Your task to perform on an android device: What's on the menu at Papa Murphy's? Image 0: 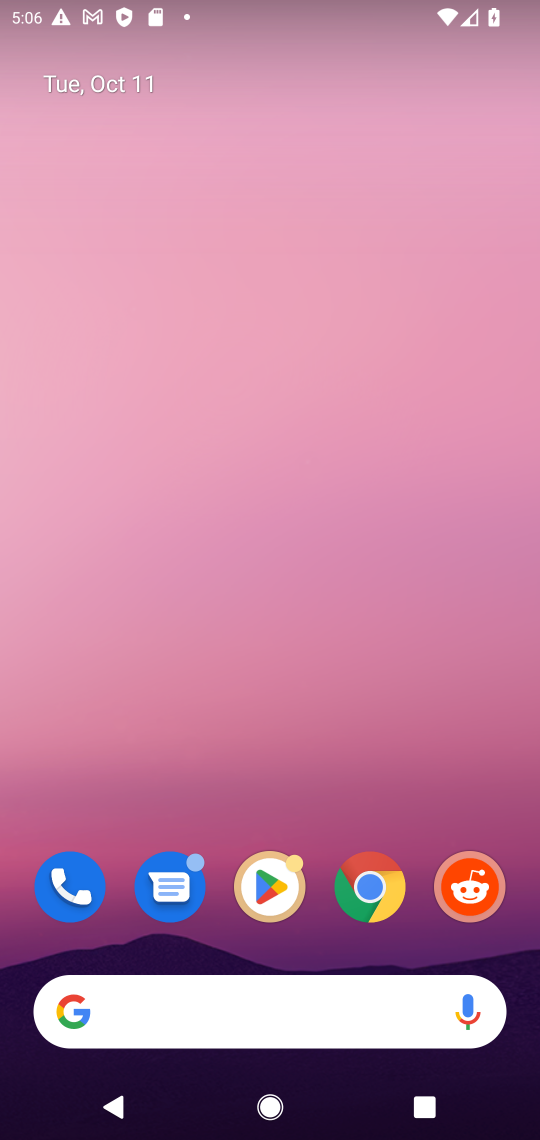
Step 0: click (216, 1003)
Your task to perform on an android device: What's on the menu at Papa Murphy's? Image 1: 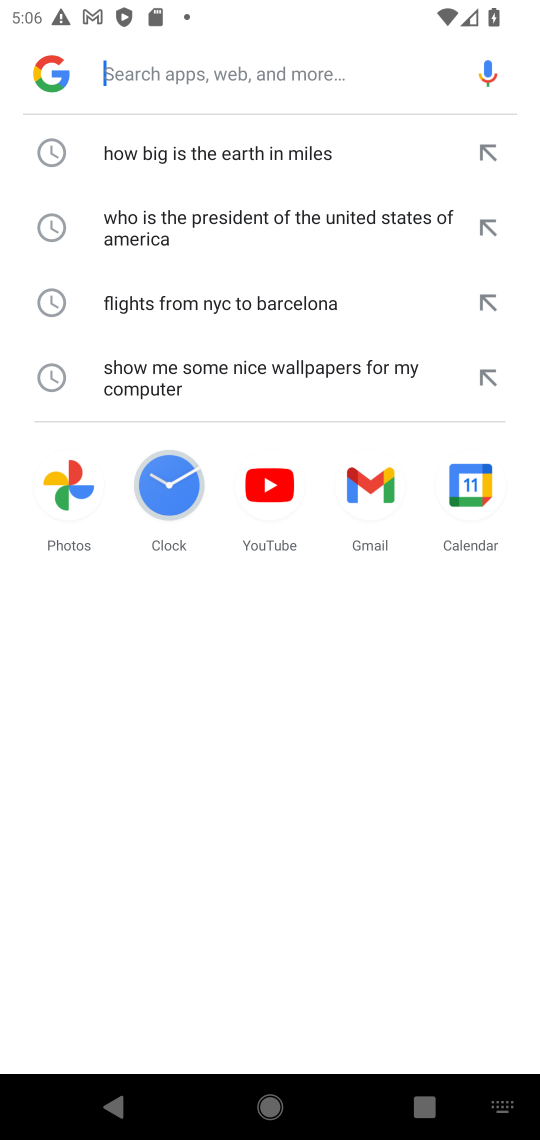
Step 1: type "What's on the menu at Papa Murphy's?"
Your task to perform on an android device: What's on the menu at Papa Murphy's? Image 2: 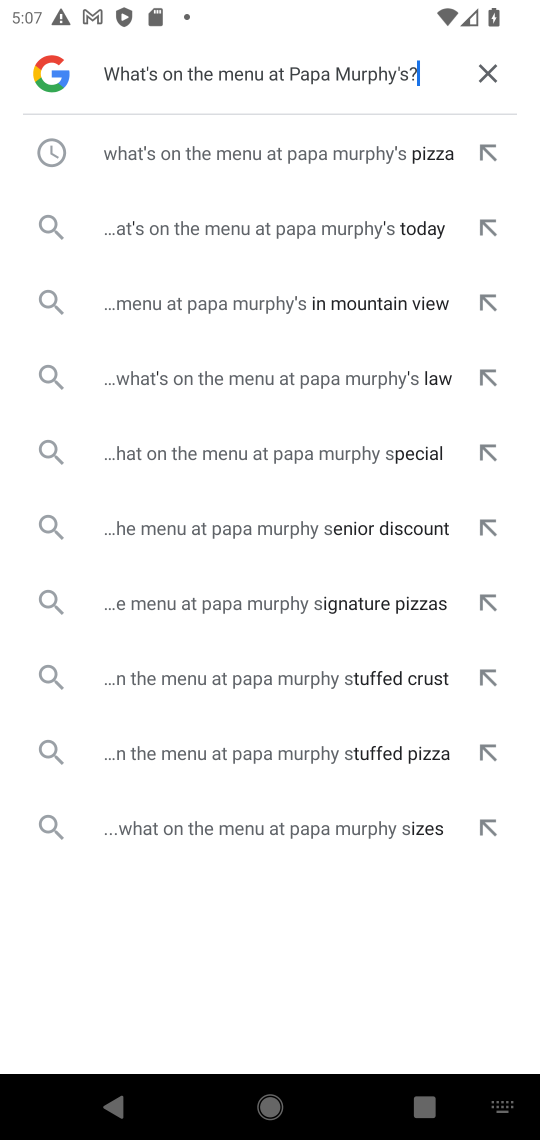
Step 2: click (313, 231)
Your task to perform on an android device: What's on the menu at Papa Murphy's? Image 3: 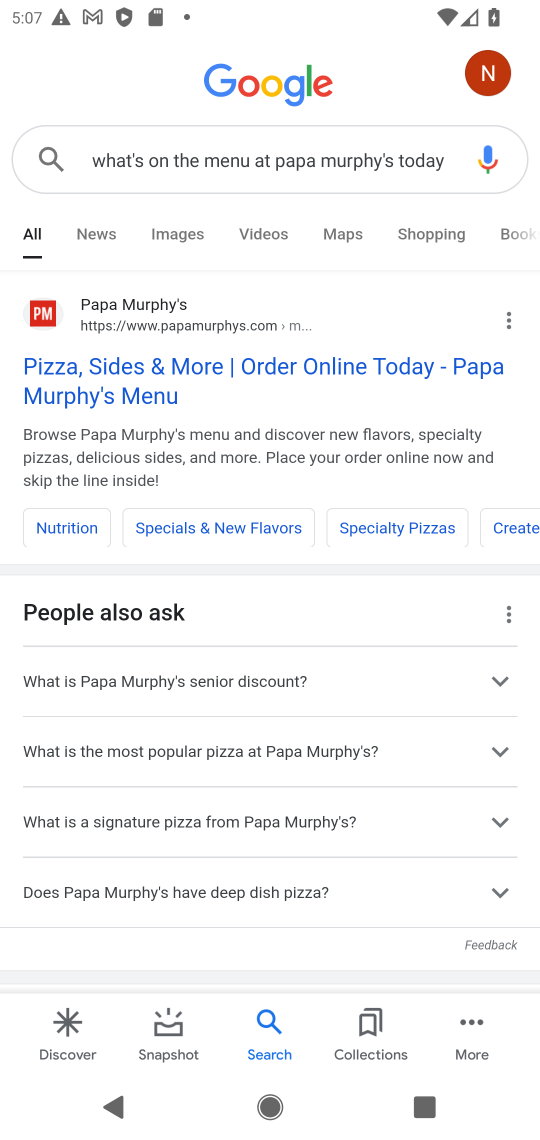
Step 3: task complete